Your task to perform on an android device: open chrome and create a bookmark for the current page Image 0: 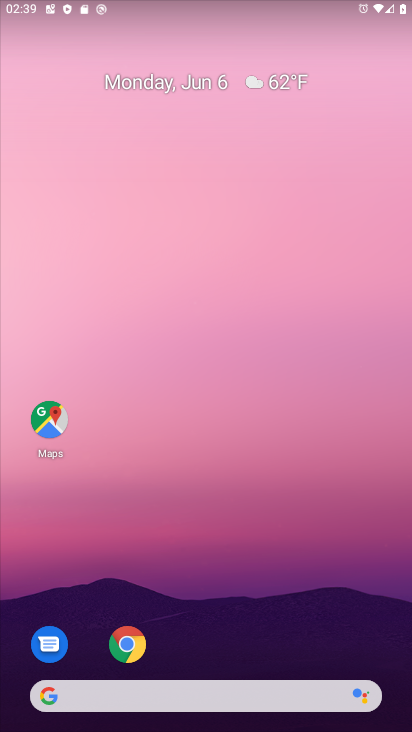
Step 0: click (132, 651)
Your task to perform on an android device: open chrome and create a bookmark for the current page Image 1: 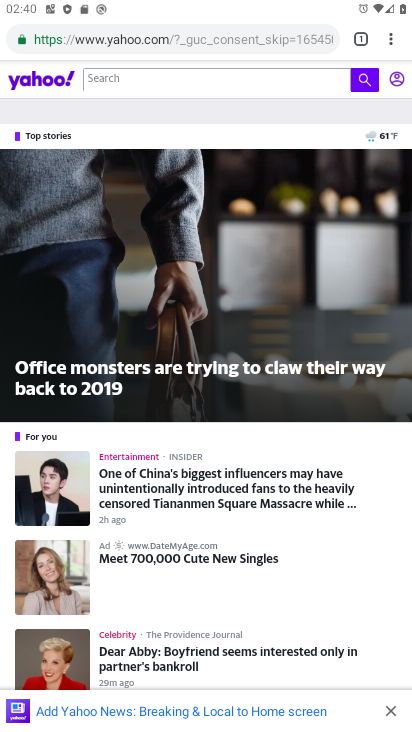
Step 1: click (392, 45)
Your task to perform on an android device: open chrome and create a bookmark for the current page Image 2: 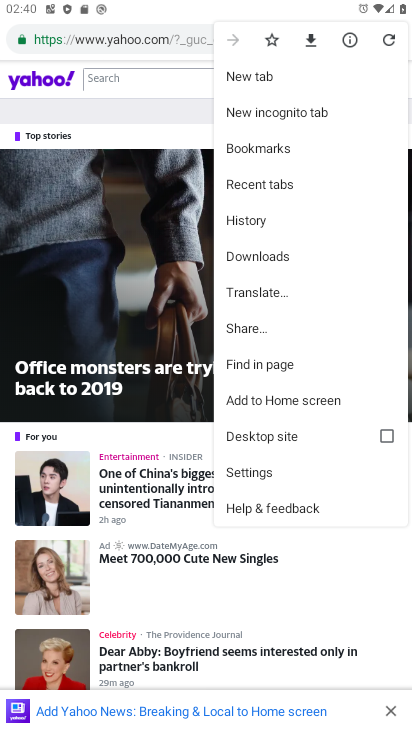
Step 2: click (267, 39)
Your task to perform on an android device: open chrome and create a bookmark for the current page Image 3: 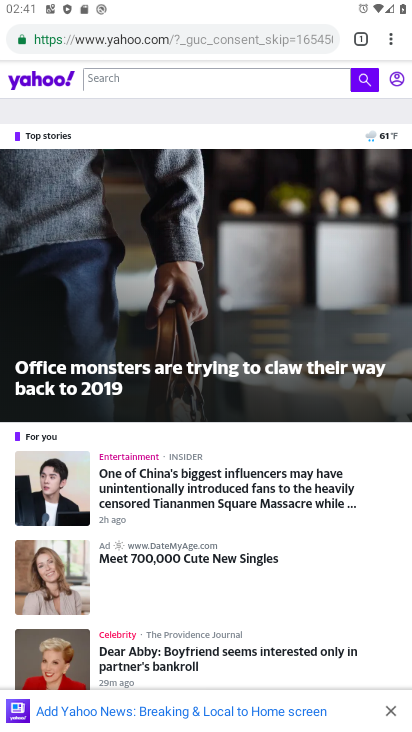
Step 3: task complete